Your task to perform on an android device: Open wifi settings Image 0: 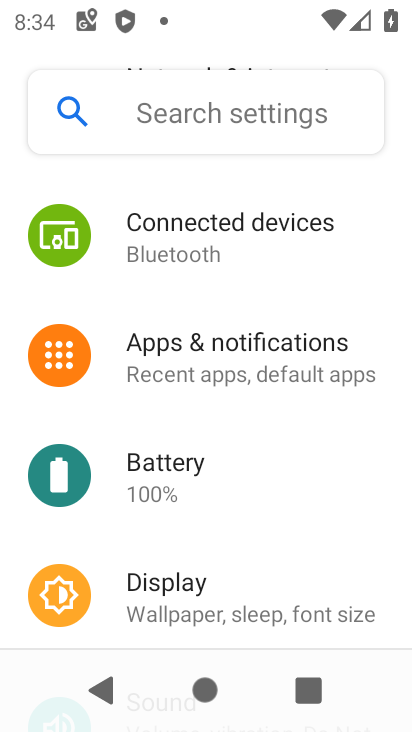
Step 0: press home button
Your task to perform on an android device: Open wifi settings Image 1: 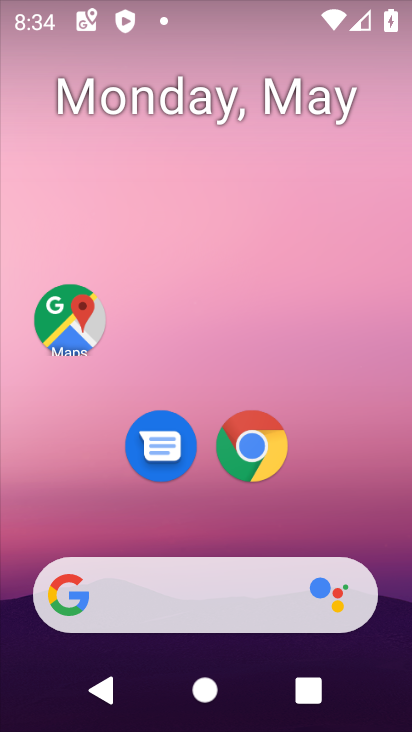
Step 1: drag from (196, 525) to (237, 79)
Your task to perform on an android device: Open wifi settings Image 2: 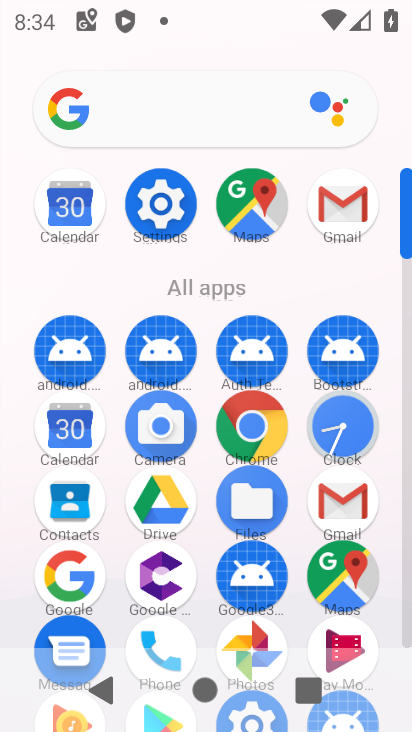
Step 2: click (162, 194)
Your task to perform on an android device: Open wifi settings Image 3: 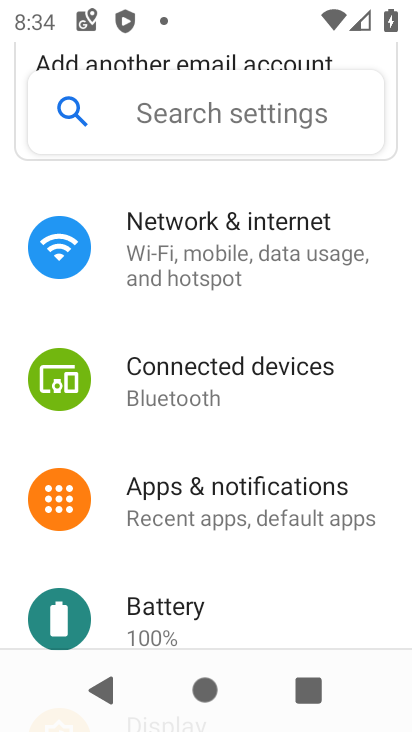
Step 3: click (200, 240)
Your task to perform on an android device: Open wifi settings Image 4: 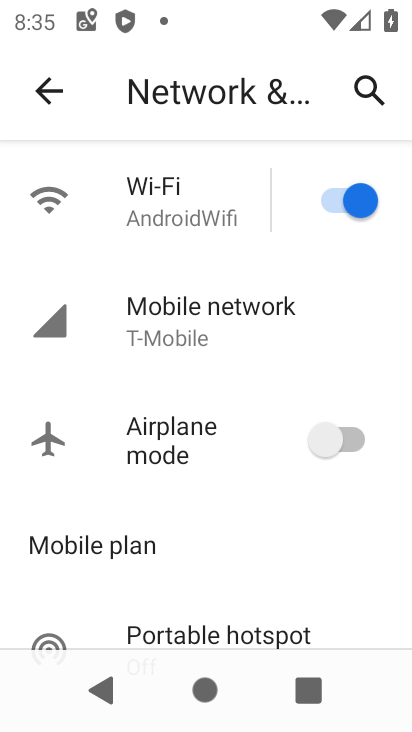
Step 4: click (207, 196)
Your task to perform on an android device: Open wifi settings Image 5: 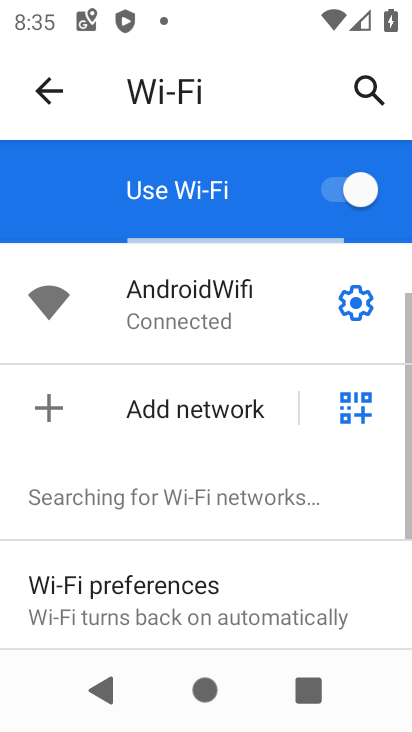
Step 5: task complete